Your task to perform on an android device: empty trash in the gmail app Image 0: 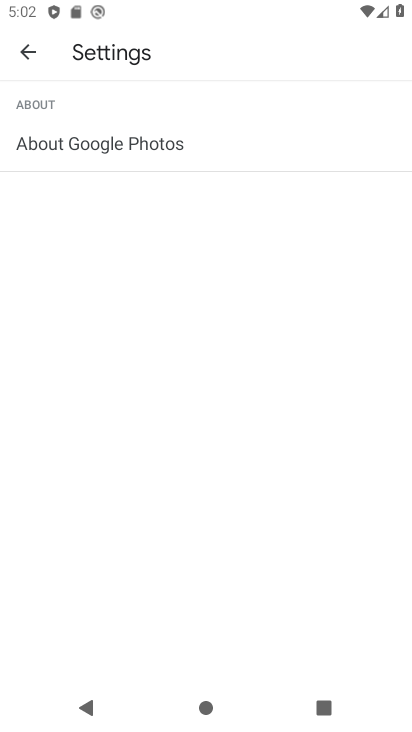
Step 0: press home button
Your task to perform on an android device: empty trash in the gmail app Image 1: 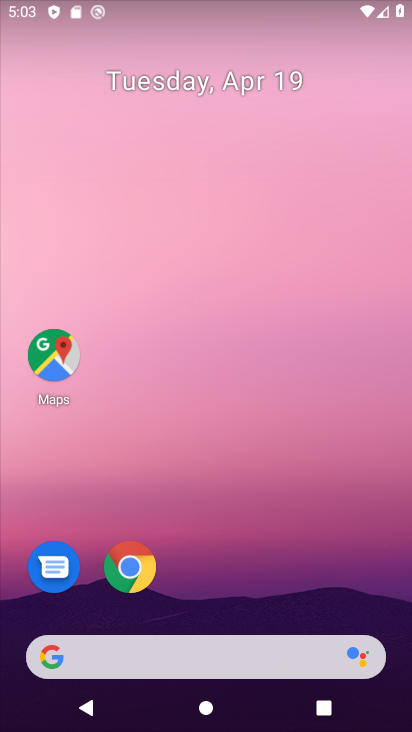
Step 1: drag from (234, 458) to (164, 4)
Your task to perform on an android device: empty trash in the gmail app Image 2: 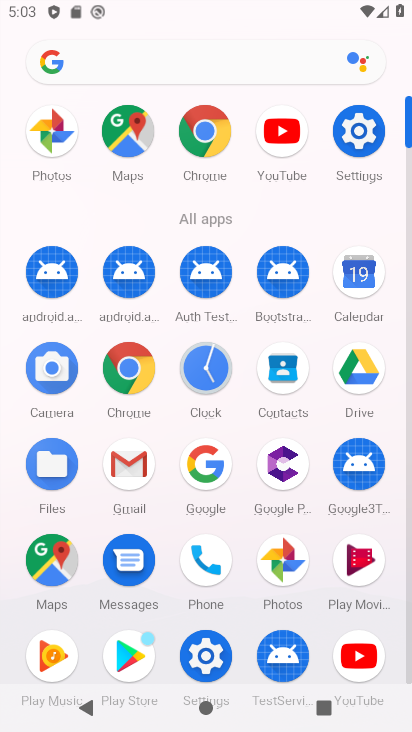
Step 2: click (143, 463)
Your task to perform on an android device: empty trash in the gmail app Image 3: 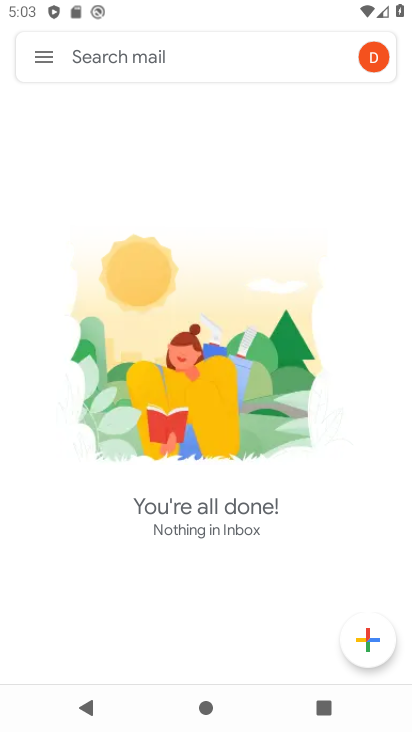
Step 3: click (42, 53)
Your task to perform on an android device: empty trash in the gmail app Image 4: 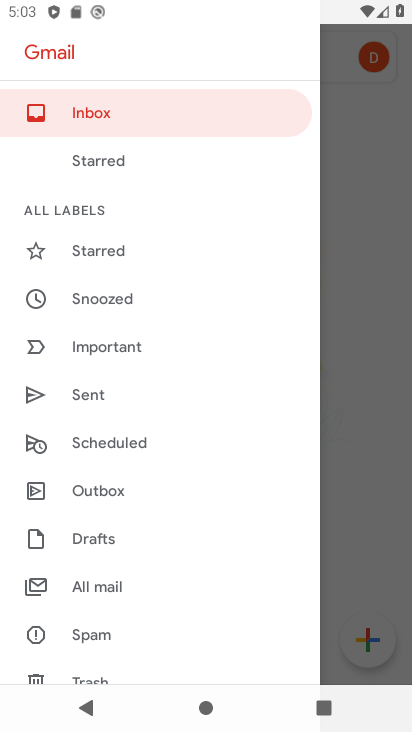
Step 4: drag from (139, 633) to (119, 258)
Your task to perform on an android device: empty trash in the gmail app Image 5: 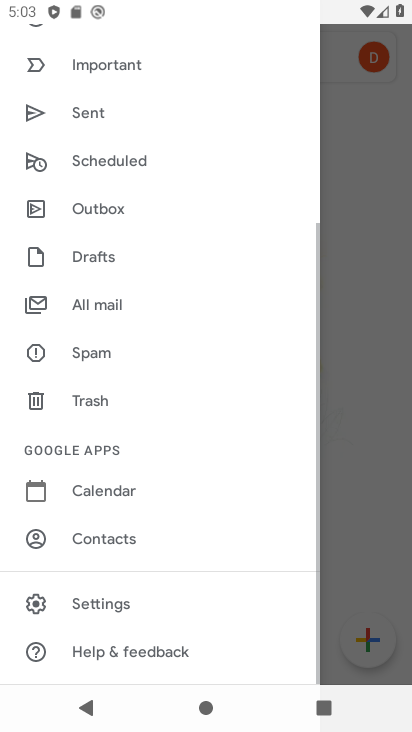
Step 5: click (111, 398)
Your task to perform on an android device: empty trash in the gmail app Image 6: 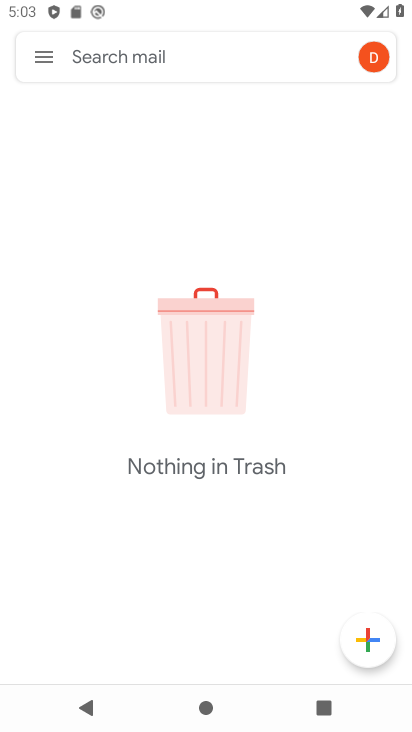
Step 6: task complete